Your task to perform on an android device: change the clock display to analog Image 0: 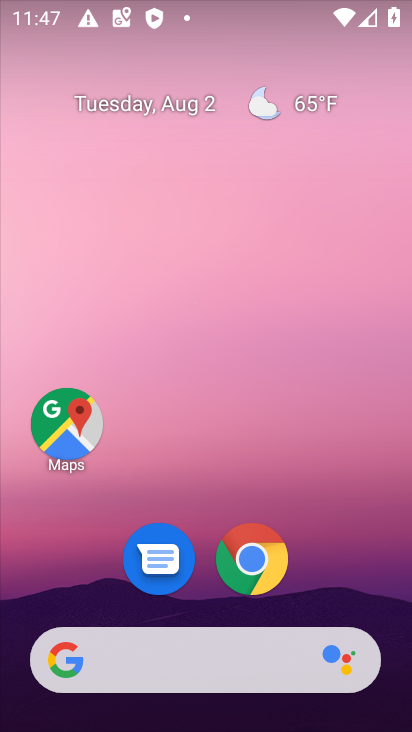
Step 0: drag from (211, 614) to (200, 197)
Your task to perform on an android device: change the clock display to analog Image 1: 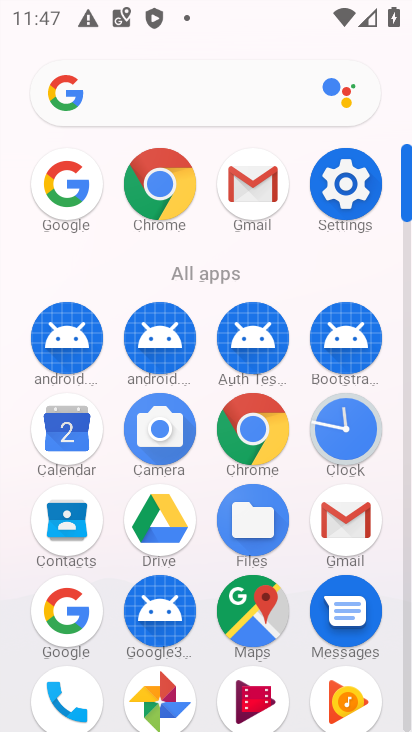
Step 1: click (344, 433)
Your task to perform on an android device: change the clock display to analog Image 2: 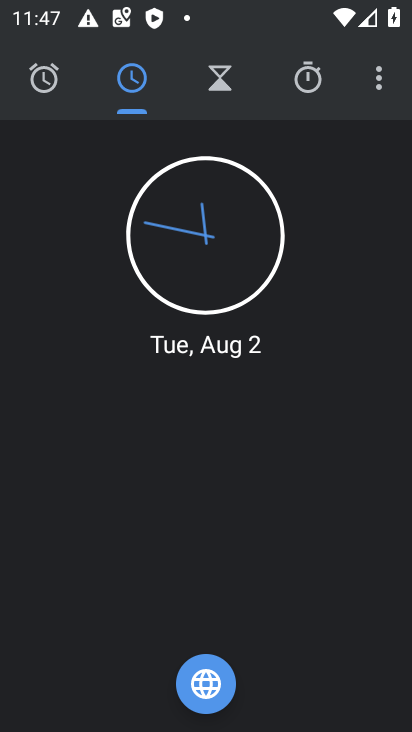
Step 2: click (381, 90)
Your task to perform on an android device: change the clock display to analog Image 3: 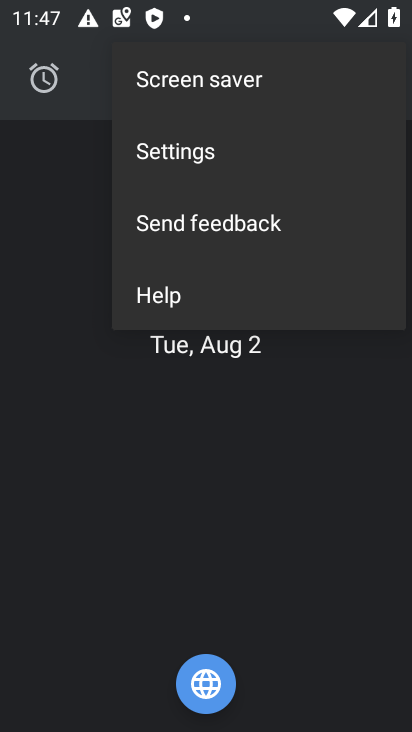
Step 3: click (165, 155)
Your task to perform on an android device: change the clock display to analog Image 4: 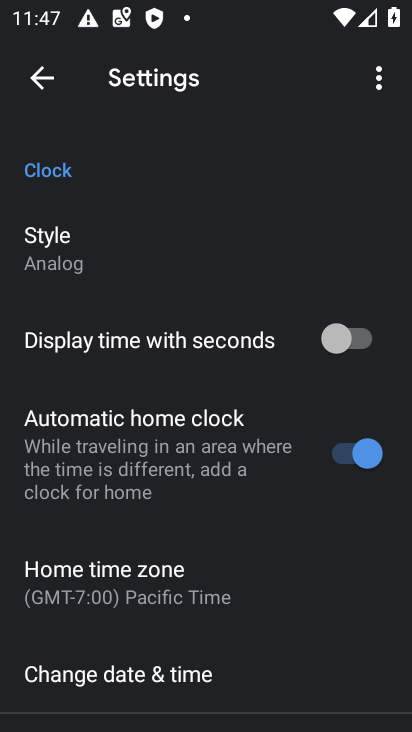
Step 4: task complete